Your task to perform on an android device: Go to Maps Image 0: 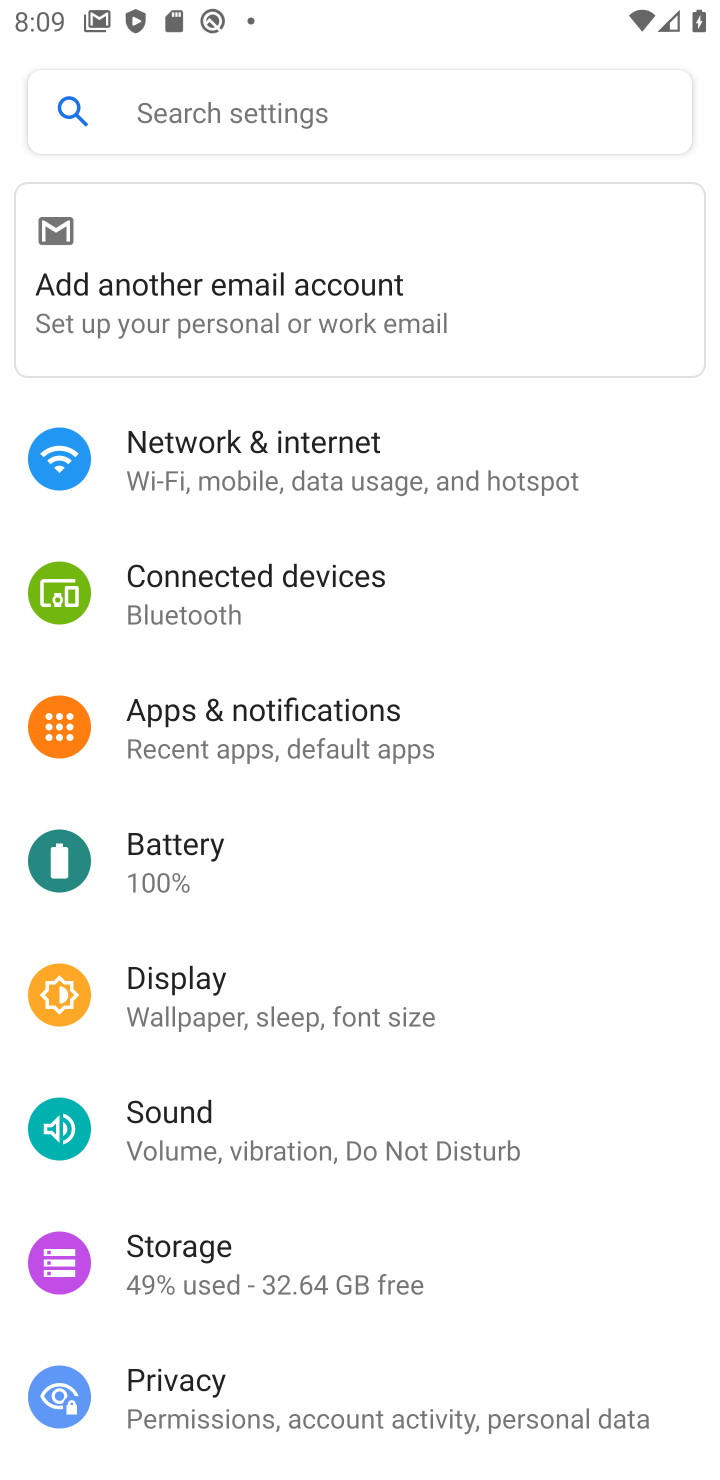
Step 0: press home button
Your task to perform on an android device: Go to Maps Image 1: 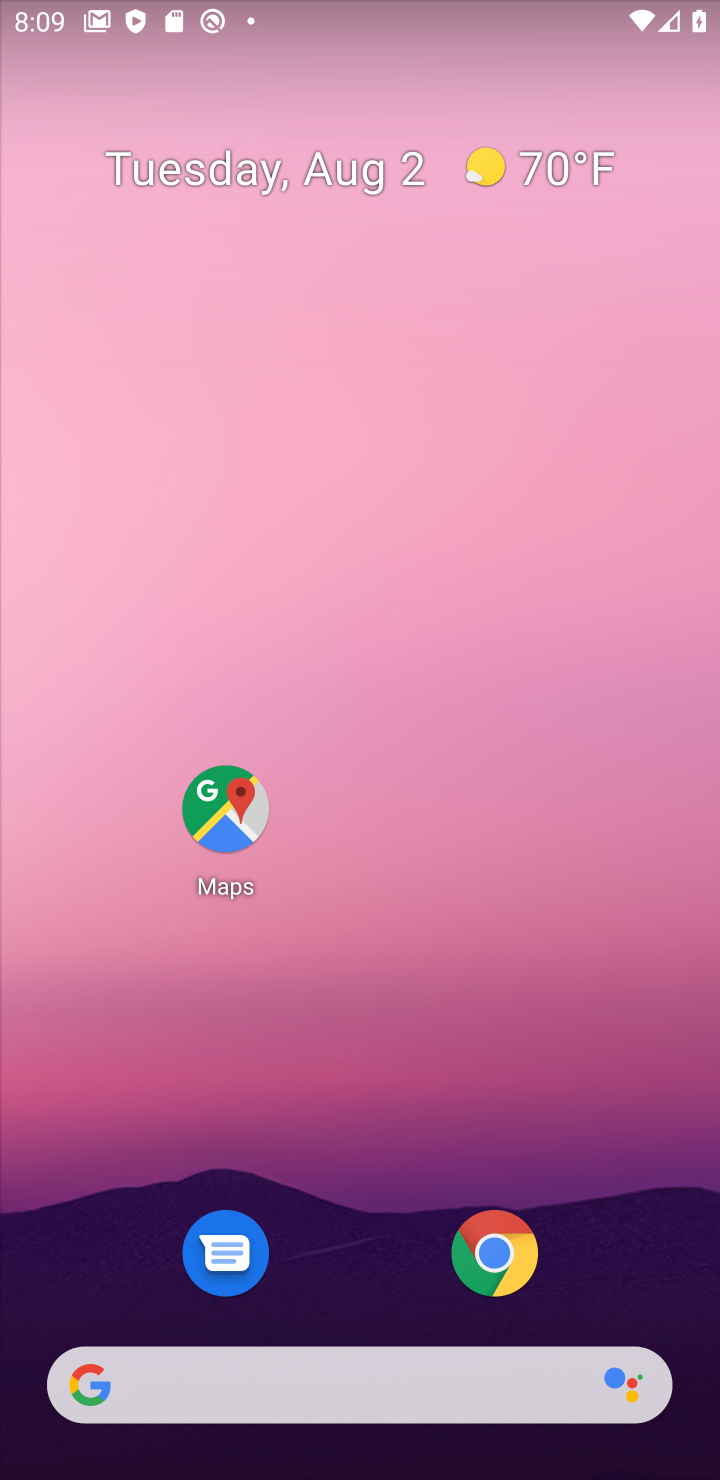
Step 1: click (220, 804)
Your task to perform on an android device: Go to Maps Image 2: 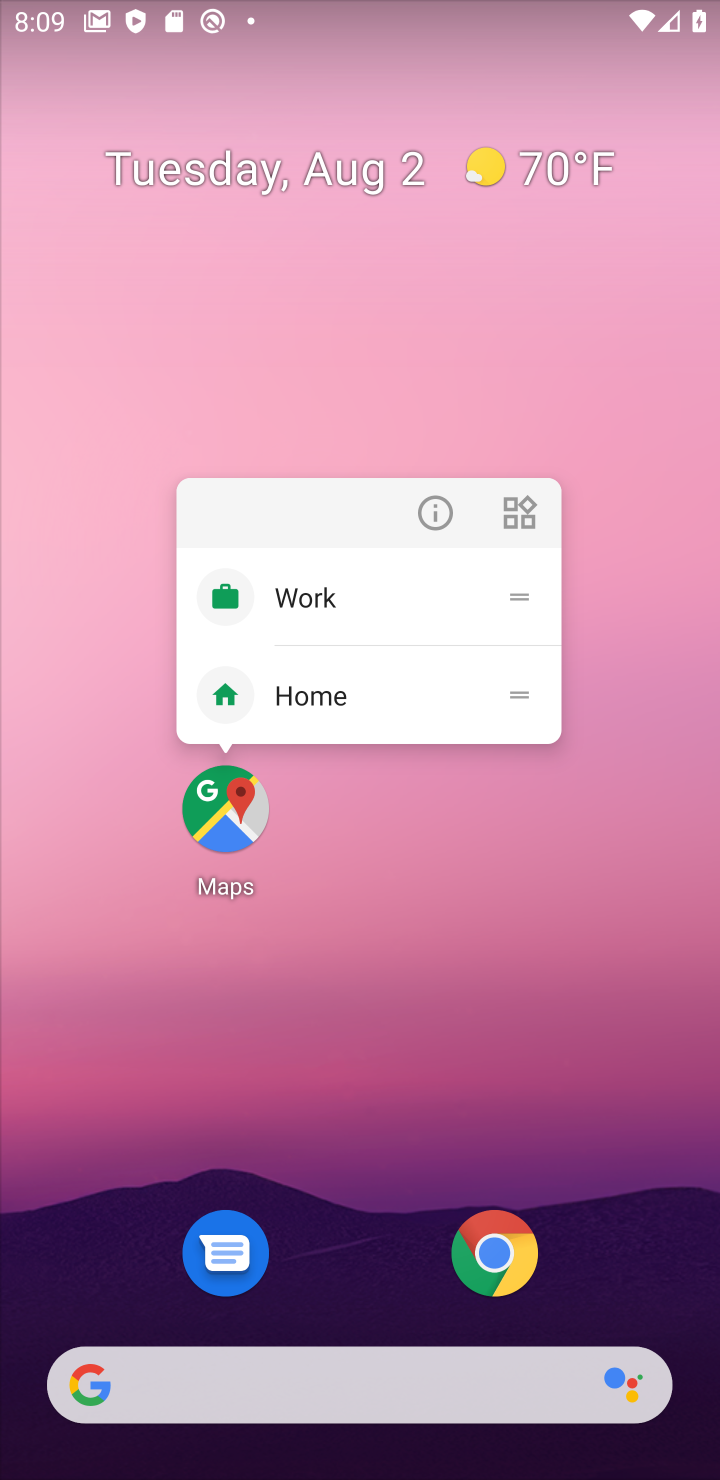
Step 2: click (220, 804)
Your task to perform on an android device: Go to Maps Image 3: 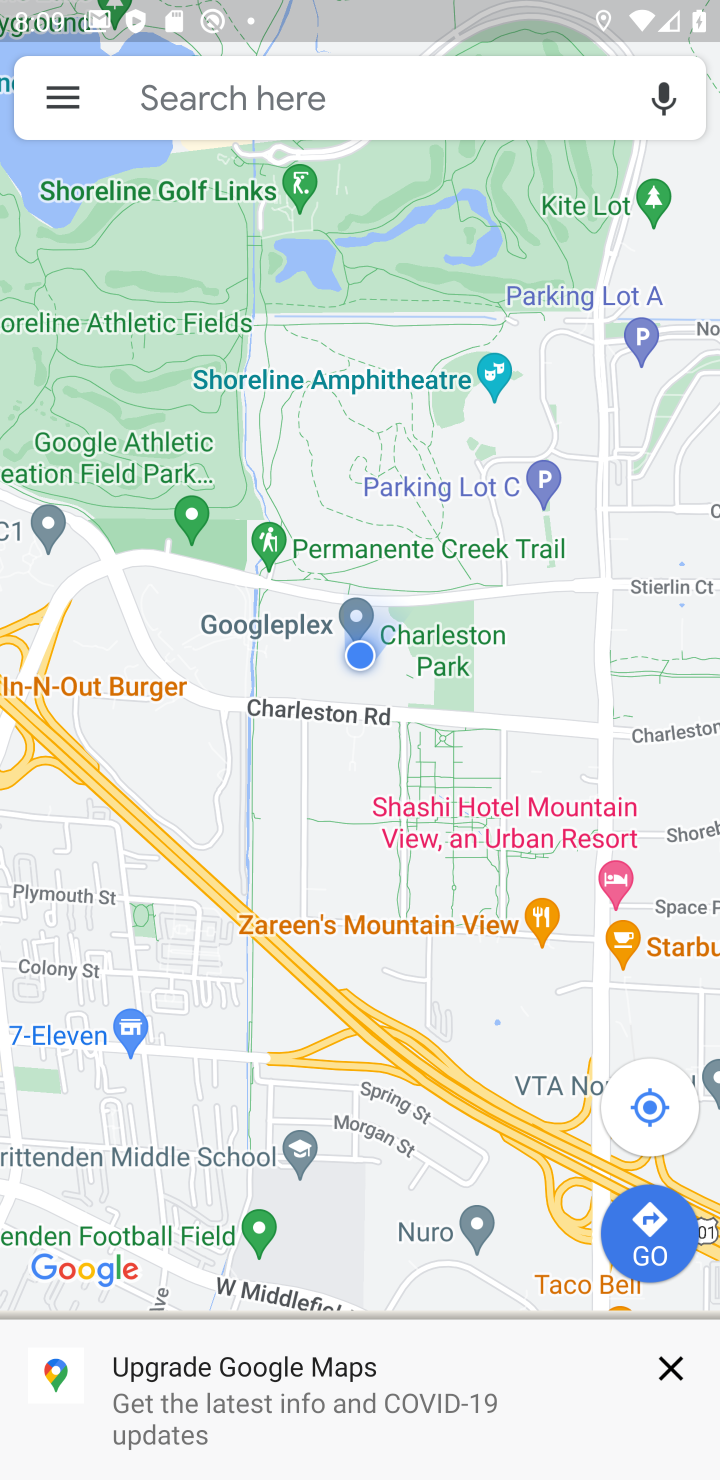
Step 3: task complete